Your task to perform on an android device: open device folders in google photos Image 0: 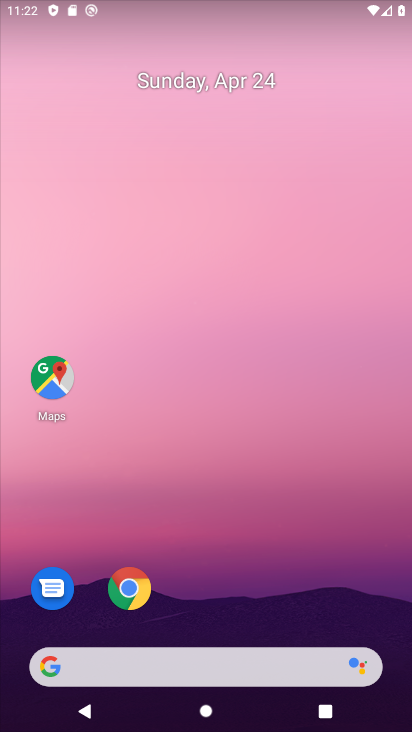
Step 0: drag from (293, 630) to (305, 63)
Your task to perform on an android device: open device folders in google photos Image 1: 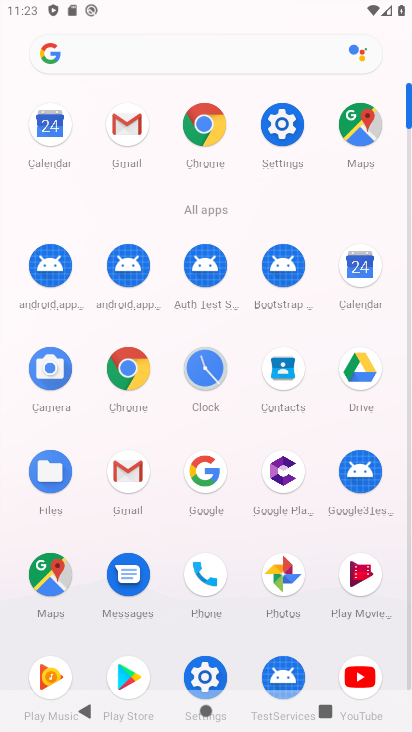
Step 1: click (279, 570)
Your task to perform on an android device: open device folders in google photos Image 2: 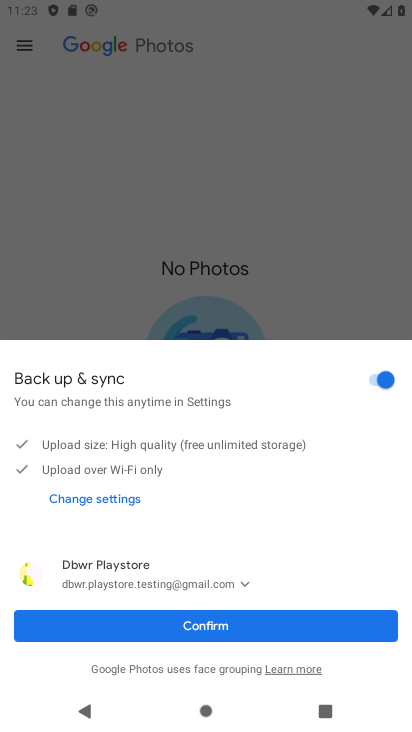
Step 2: click (259, 629)
Your task to perform on an android device: open device folders in google photos Image 3: 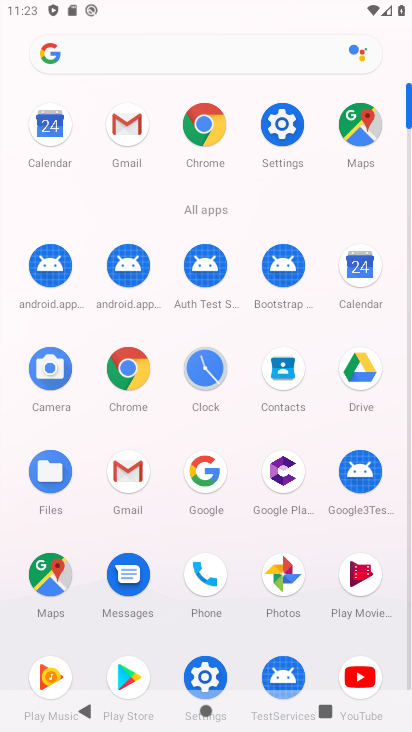
Step 3: click (288, 572)
Your task to perform on an android device: open device folders in google photos Image 4: 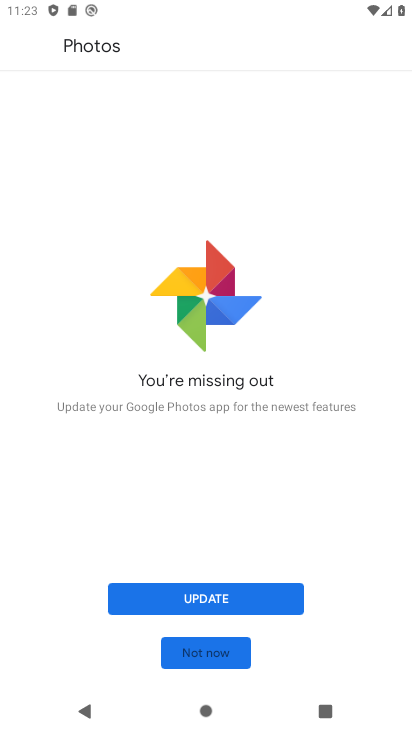
Step 4: click (244, 598)
Your task to perform on an android device: open device folders in google photos Image 5: 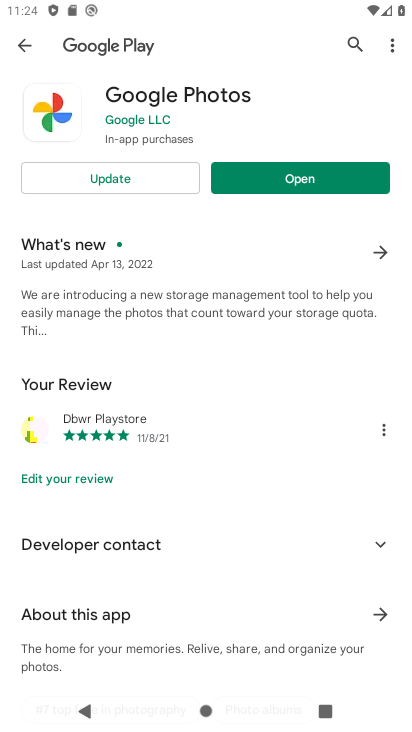
Step 5: click (149, 179)
Your task to perform on an android device: open device folders in google photos Image 6: 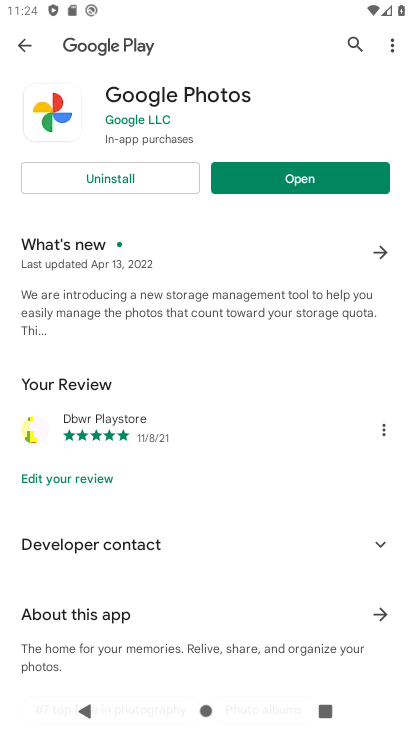
Step 6: click (312, 181)
Your task to perform on an android device: open device folders in google photos Image 7: 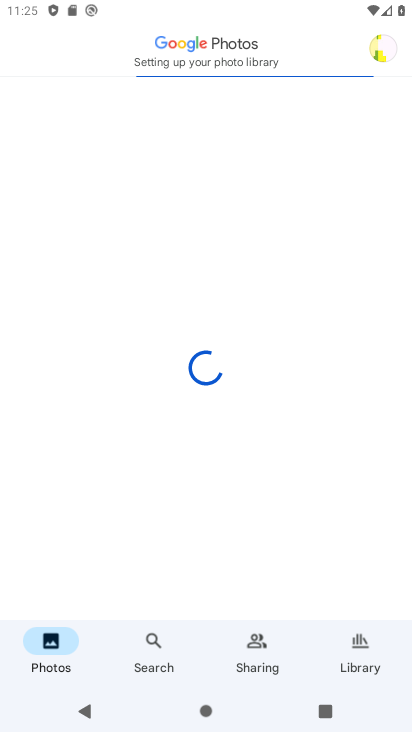
Step 7: click (143, 648)
Your task to perform on an android device: open device folders in google photos Image 8: 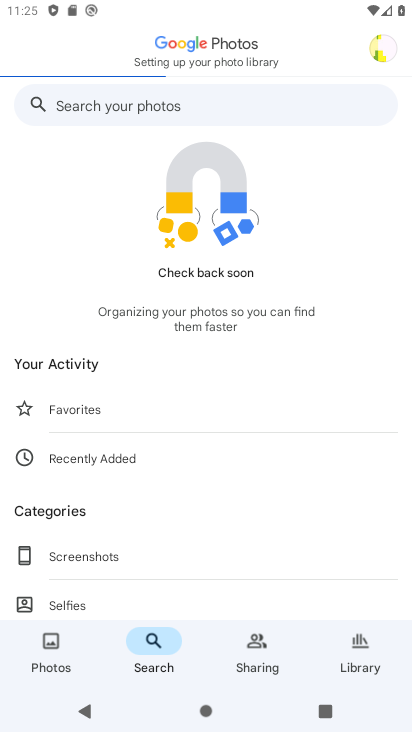
Step 8: click (188, 101)
Your task to perform on an android device: open device folders in google photos Image 9: 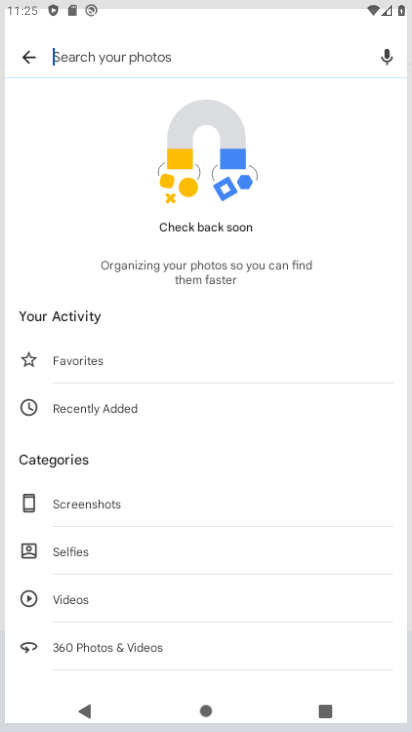
Step 9: click (54, 99)
Your task to perform on an android device: open device folders in google photos Image 10: 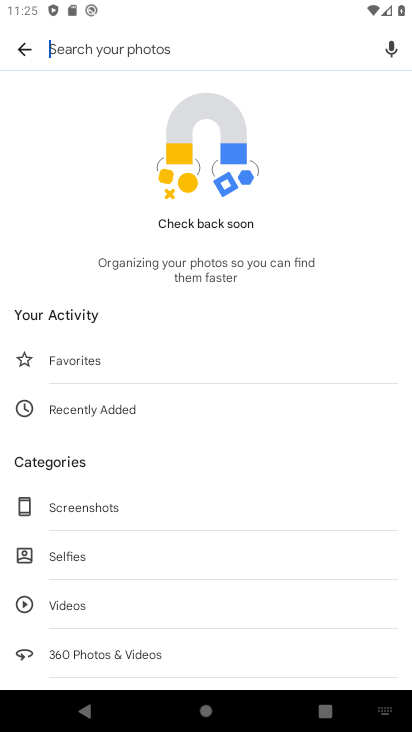
Step 10: type "device folders"
Your task to perform on an android device: open device folders in google photos Image 11: 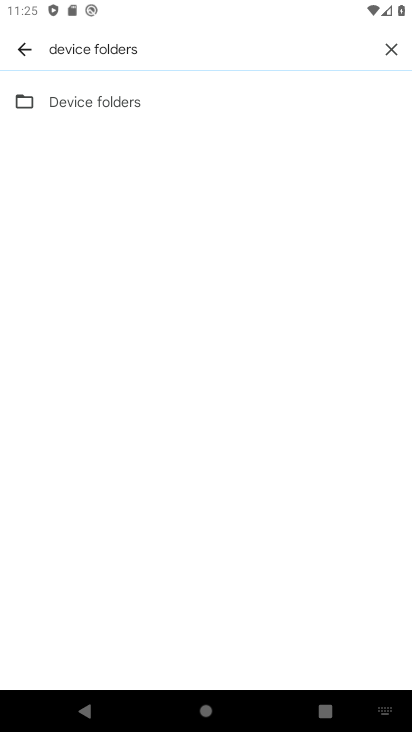
Step 11: click (139, 107)
Your task to perform on an android device: open device folders in google photos Image 12: 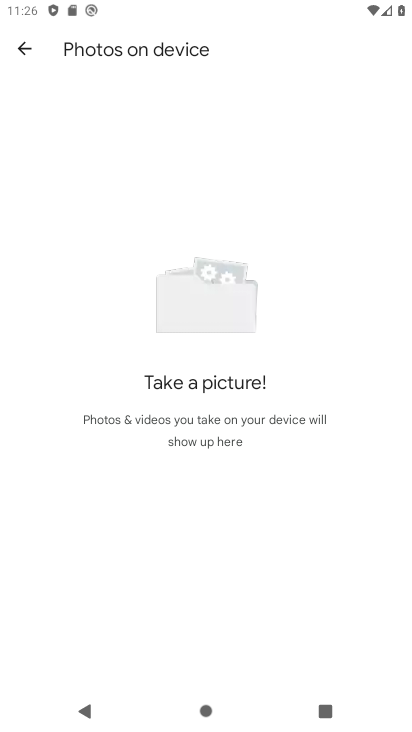
Step 12: task complete